Your task to perform on an android device: Open Chrome and go to settings Image 0: 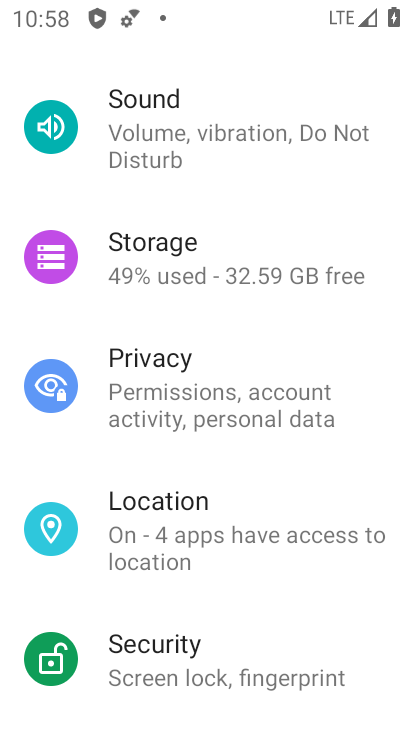
Step 0: press home button
Your task to perform on an android device: Open Chrome and go to settings Image 1: 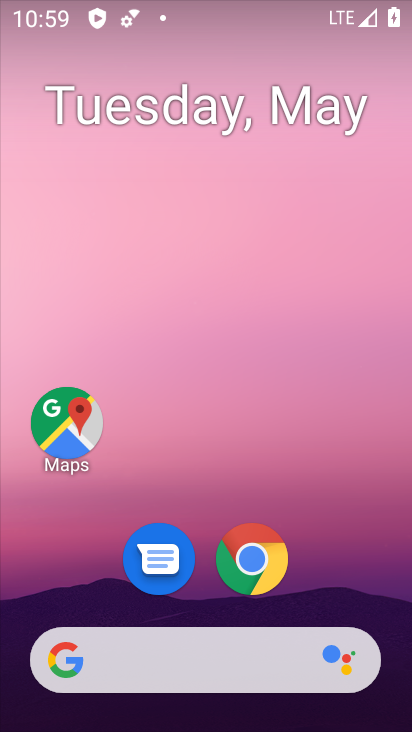
Step 1: drag from (327, 527) to (335, 178)
Your task to perform on an android device: Open Chrome and go to settings Image 2: 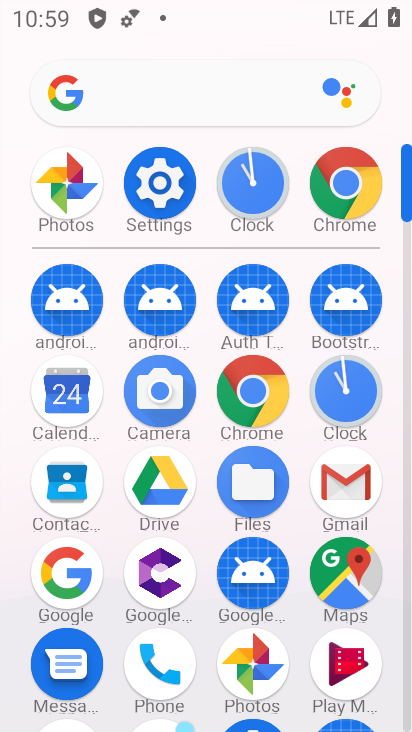
Step 2: click (269, 403)
Your task to perform on an android device: Open Chrome and go to settings Image 3: 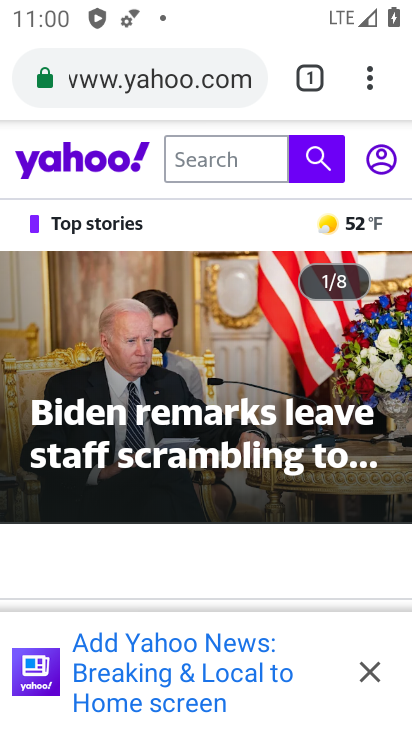
Step 3: task complete